Your task to perform on an android device: toggle wifi Image 0: 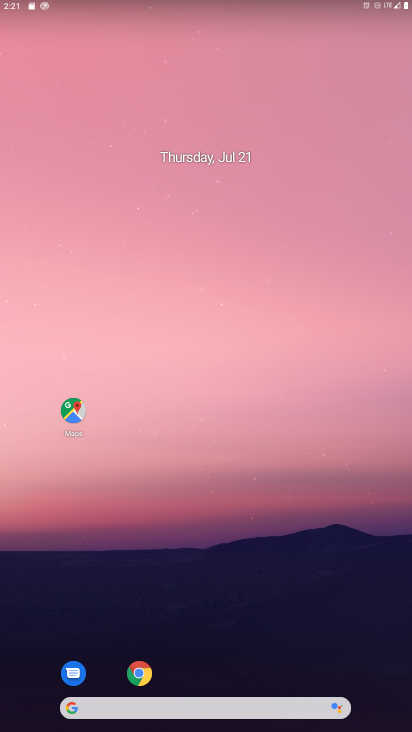
Step 0: drag from (254, 665) to (236, 203)
Your task to perform on an android device: toggle wifi Image 1: 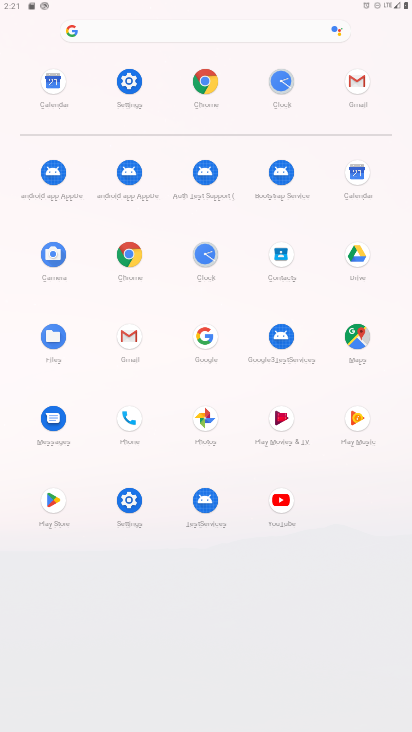
Step 1: click (133, 71)
Your task to perform on an android device: toggle wifi Image 2: 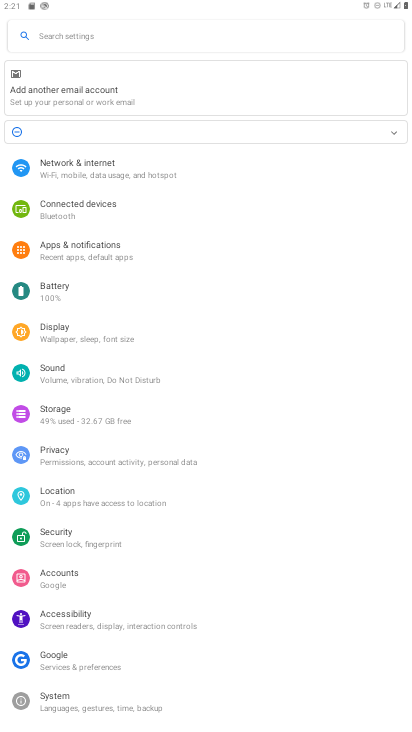
Step 2: click (60, 165)
Your task to perform on an android device: toggle wifi Image 3: 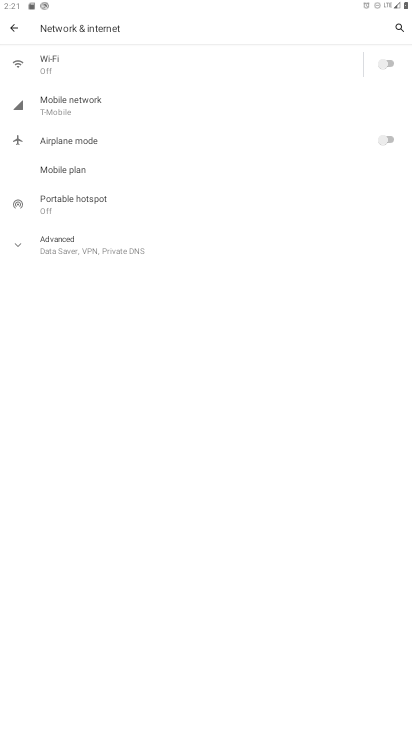
Step 3: click (63, 62)
Your task to perform on an android device: toggle wifi Image 4: 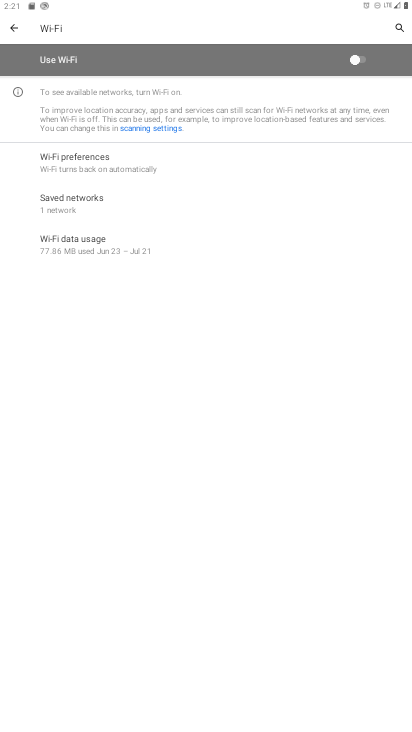
Step 4: click (359, 54)
Your task to perform on an android device: toggle wifi Image 5: 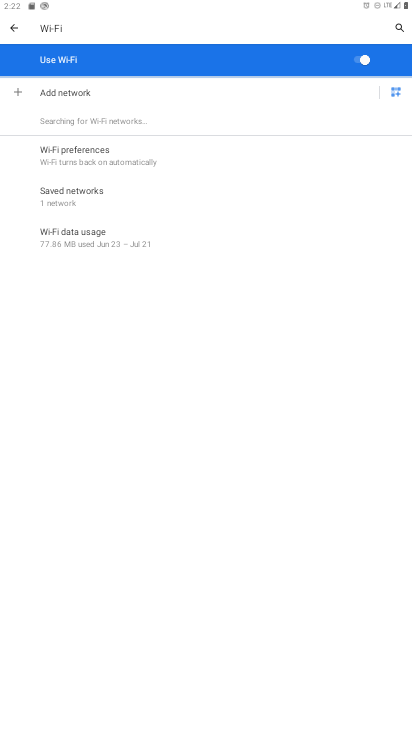
Step 5: task complete